Your task to perform on an android device: Go to sound settings Image 0: 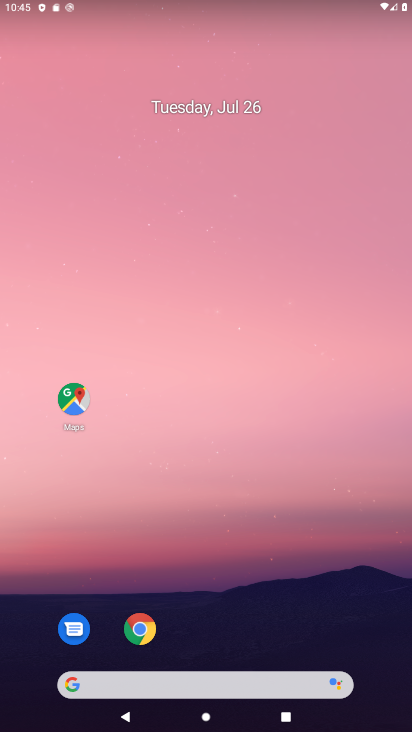
Step 0: drag from (318, 610) to (295, 14)
Your task to perform on an android device: Go to sound settings Image 1: 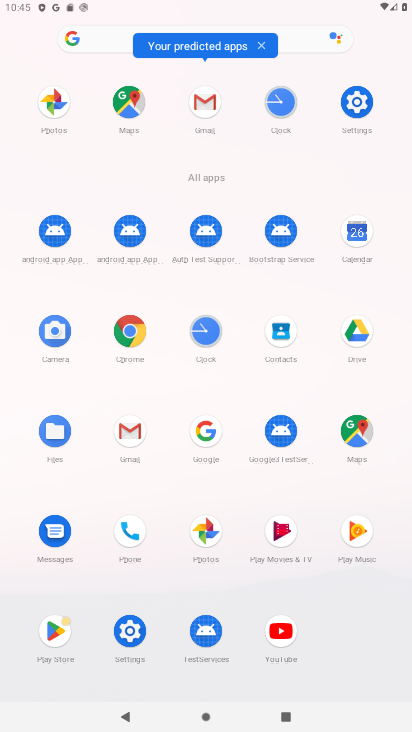
Step 1: click (356, 112)
Your task to perform on an android device: Go to sound settings Image 2: 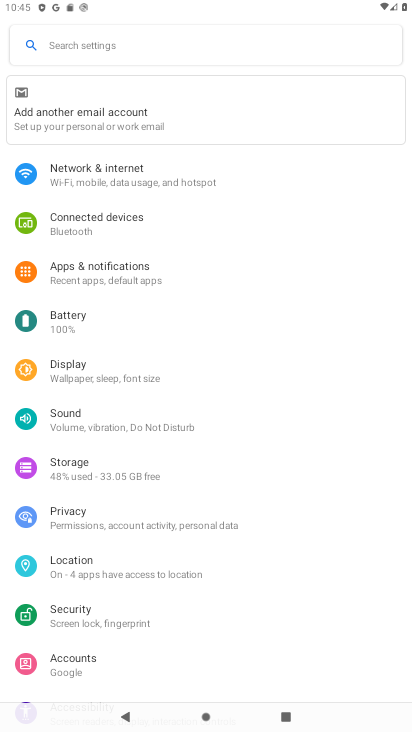
Step 2: click (159, 439)
Your task to perform on an android device: Go to sound settings Image 3: 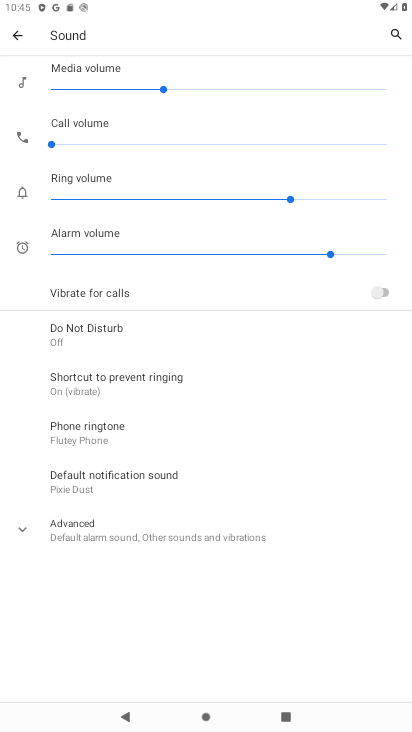
Step 3: task complete